Your task to perform on an android device: Show me productivity apps on the Play Store Image 0: 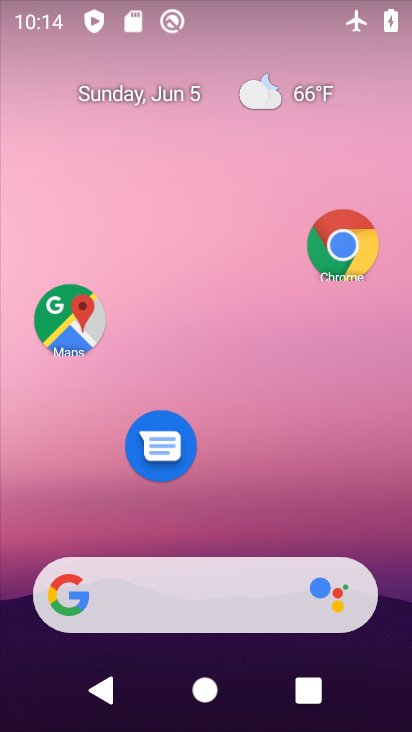
Step 0: drag from (228, 513) to (195, 117)
Your task to perform on an android device: Show me productivity apps on the Play Store Image 1: 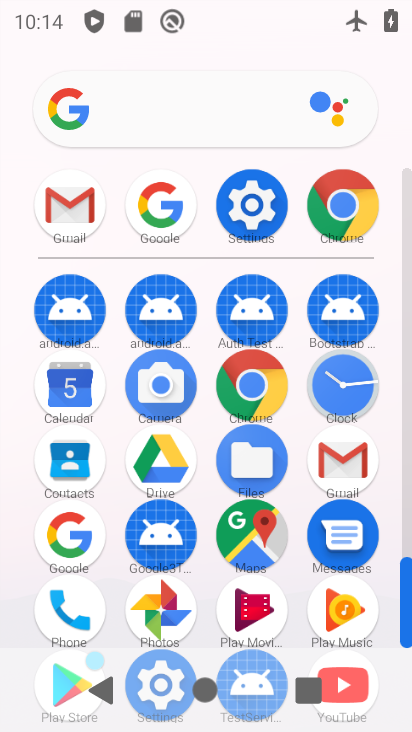
Step 1: drag from (194, 561) to (207, 374)
Your task to perform on an android device: Show me productivity apps on the Play Store Image 2: 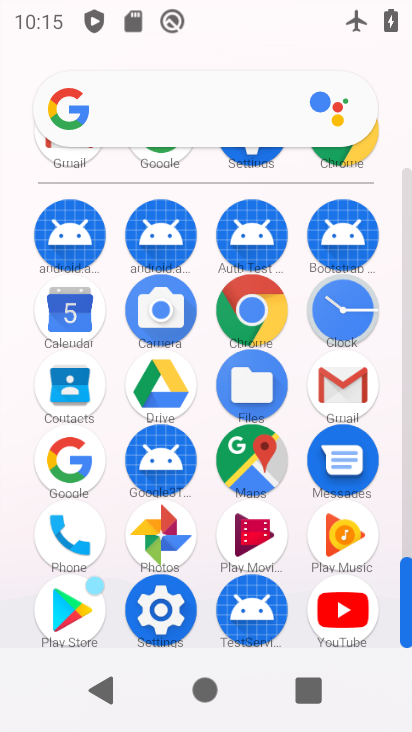
Step 2: drag from (208, 524) to (214, 300)
Your task to perform on an android device: Show me productivity apps on the Play Store Image 3: 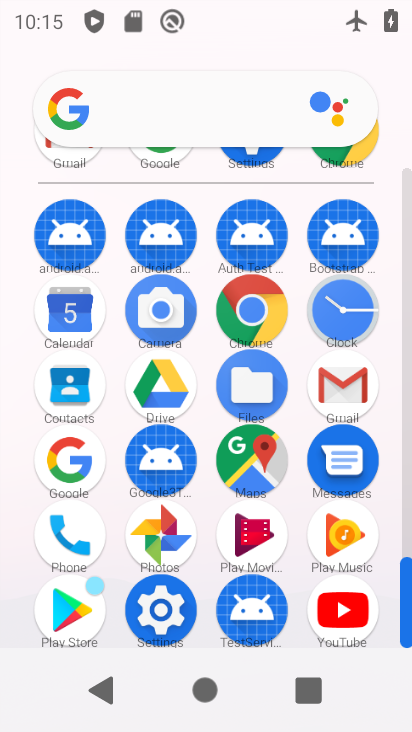
Step 3: click (56, 627)
Your task to perform on an android device: Show me productivity apps on the Play Store Image 4: 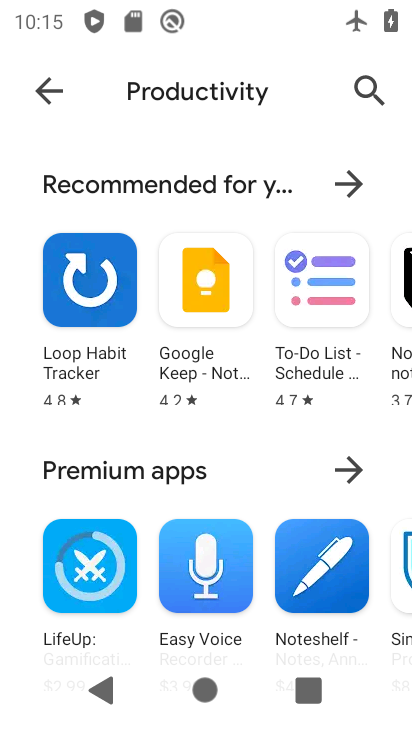
Step 4: task complete